Your task to perform on an android device: Turn on the flashlight Image 0: 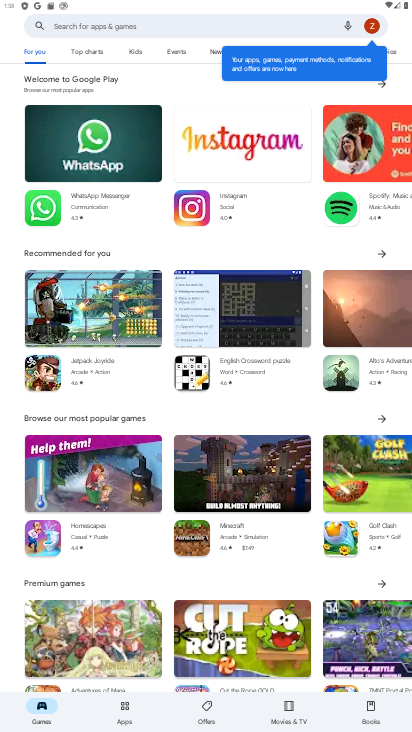
Step 0: press home button
Your task to perform on an android device: Turn on the flashlight Image 1: 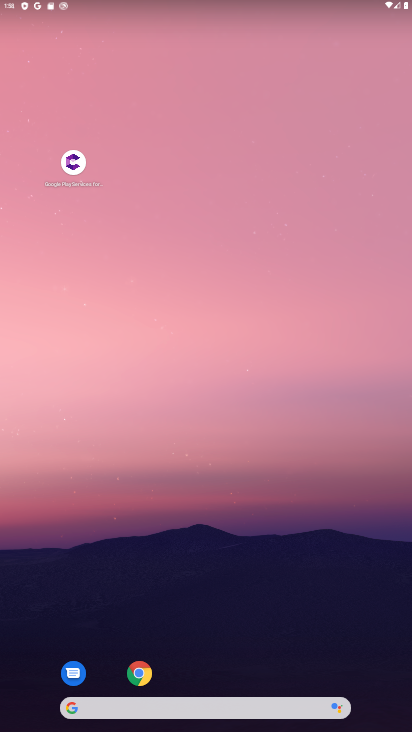
Step 1: drag from (227, 670) to (188, 70)
Your task to perform on an android device: Turn on the flashlight Image 2: 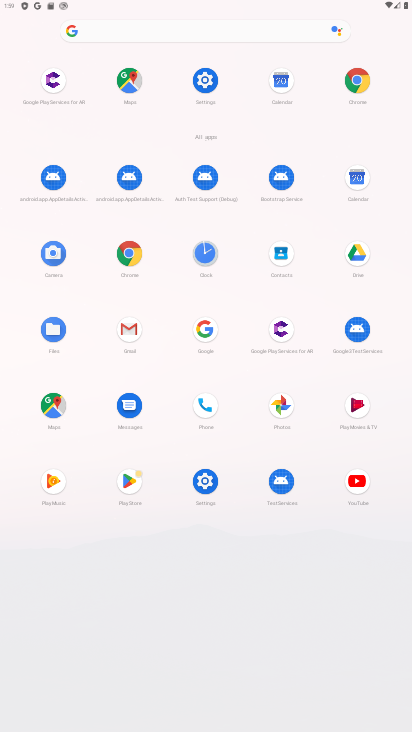
Step 2: click (199, 80)
Your task to perform on an android device: Turn on the flashlight Image 3: 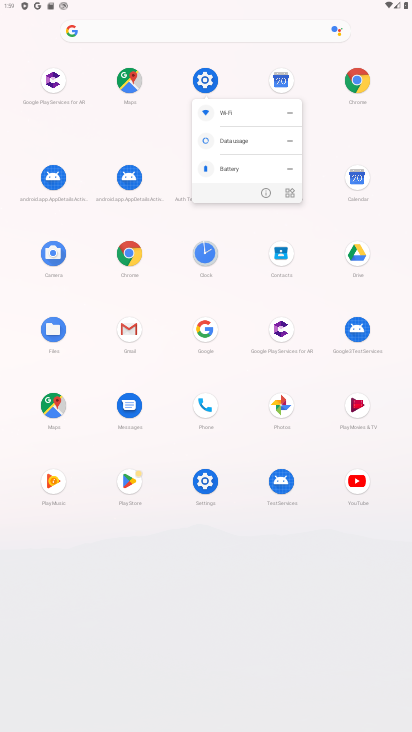
Step 3: click (270, 188)
Your task to perform on an android device: Turn on the flashlight Image 4: 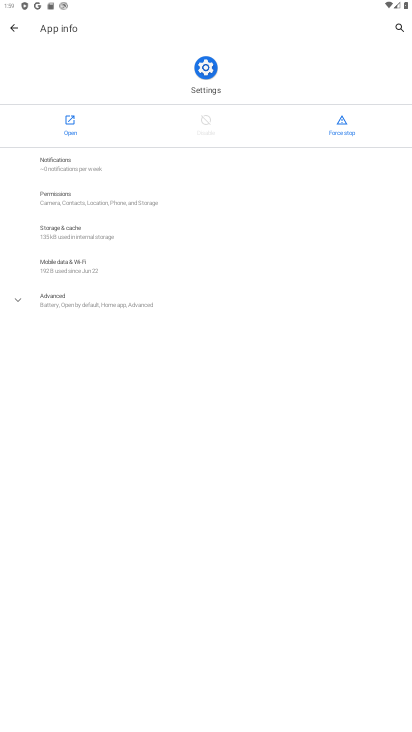
Step 4: click (75, 123)
Your task to perform on an android device: Turn on the flashlight Image 5: 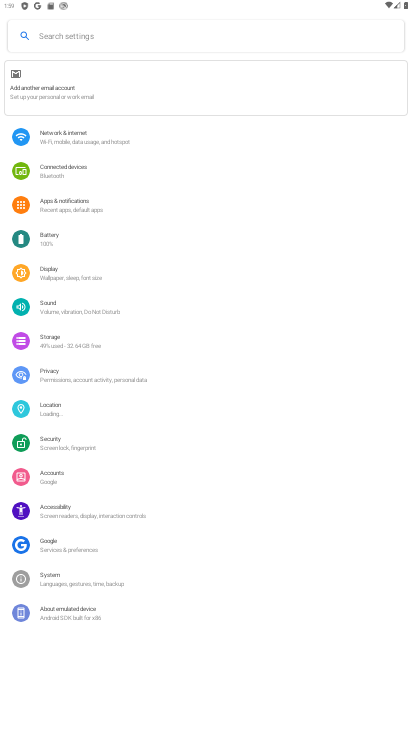
Step 5: click (130, 32)
Your task to perform on an android device: Turn on the flashlight Image 6: 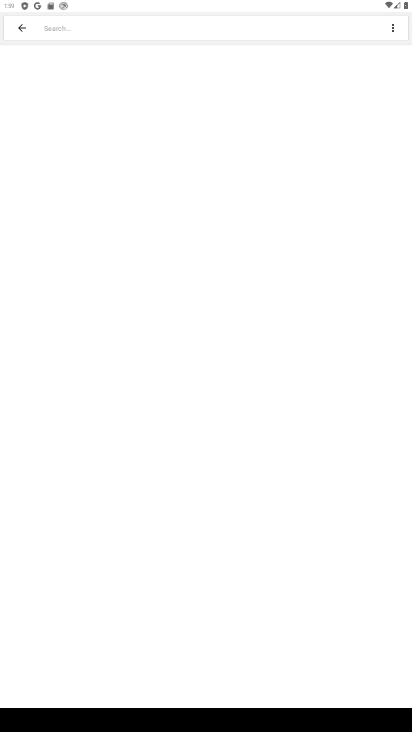
Step 6: type "flashlight"
Your task to perform on an android device: Turn on the flashlight Image 7: 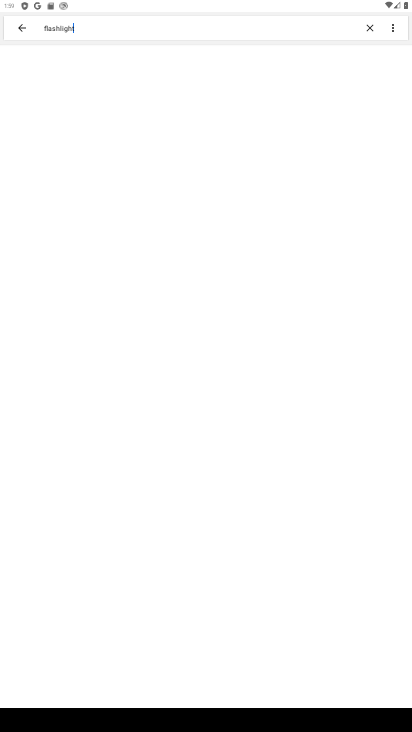
Step 7: type ""
Your task to perform on an android device: Turn on the flashlight Image 8: 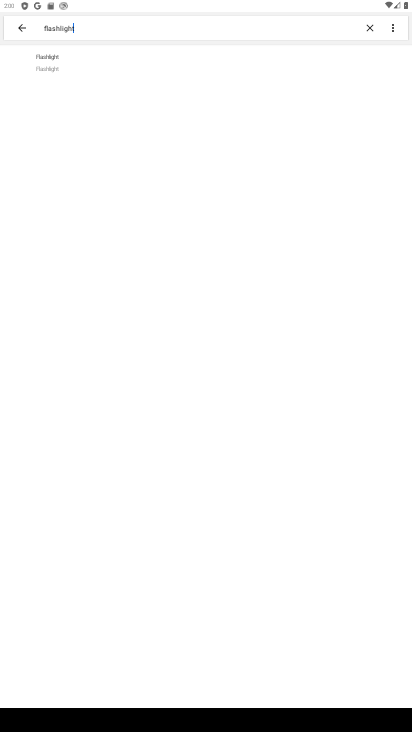
Step 8: click (46, 73)
Your task to perform on an android device: Turn on the flashlight Image 9: 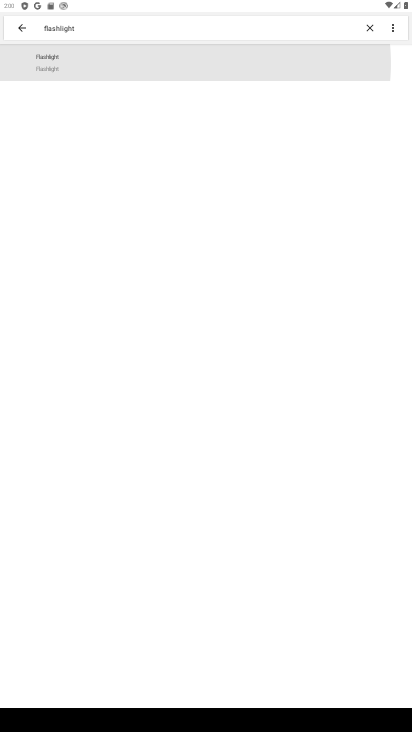
Step 9: click (46, 73)
Your task to perform on an android device: Turn on the flashlight Image 10: 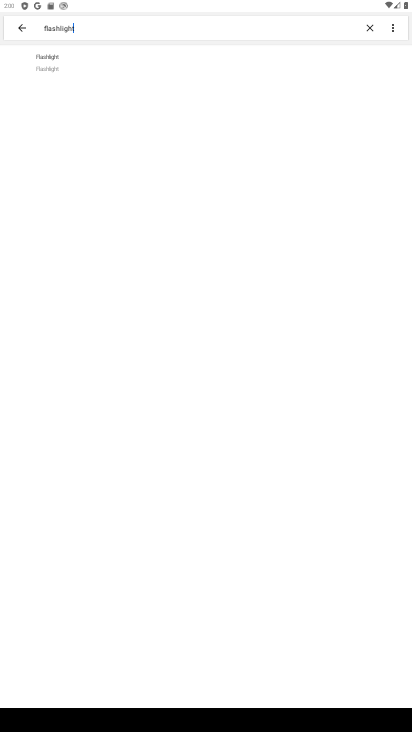
Step 10: click (99, 70)
Your task to perform on an android device: Turn on the flashlight Image 11: 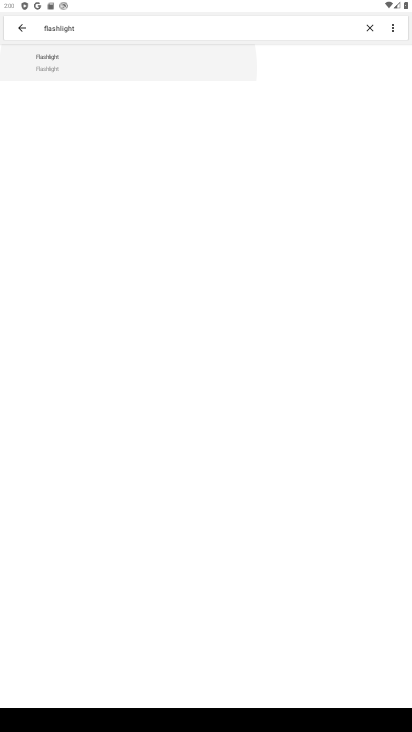
Step 11: click (93, 54)
Your task to perform on an android device: Turn on the flashlight Image 12: 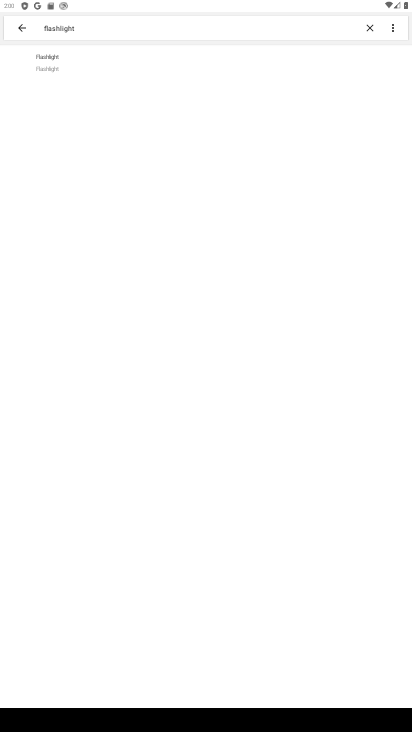
Step 12: click (100, 49)
Your task to perform on an android device: Turn on the flashlight Image 13: 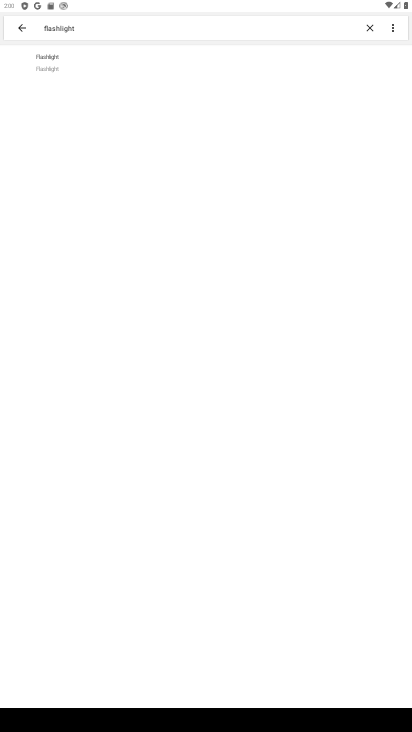
Step 13: click (88, 65)
Your task to perform on an android device: Turn on the flashlight Image 14: 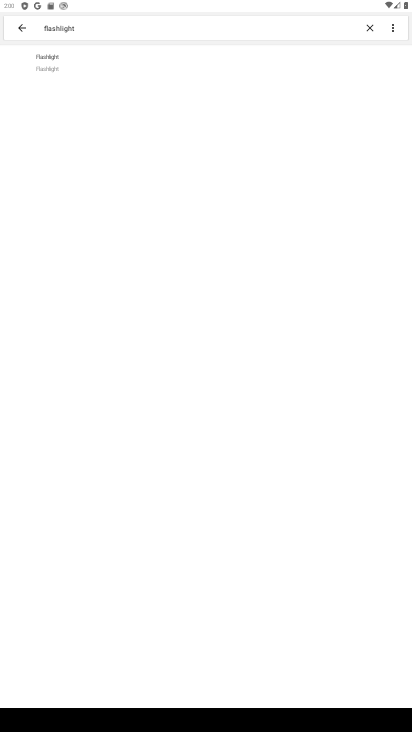
Step 14: task complete